Your task to perform on an android device: When is my next appointment? Image 0: 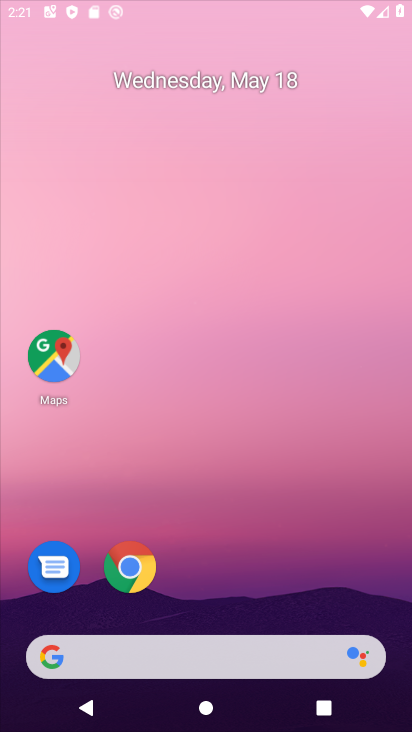
Step 0: drag from (229, 565) to (255, 124)
Your task to perform on an android device: When is my next appointment? Image 1: 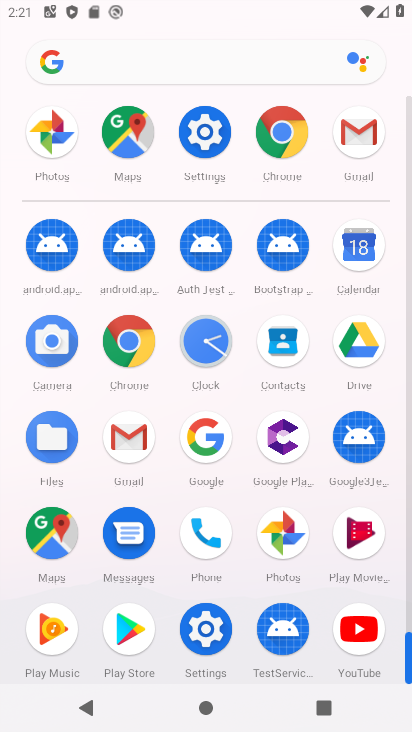
Step 1: drag from (104, 499) to (138, 280)
Your task to perform on an android device: When is my next appointment? Image 2: 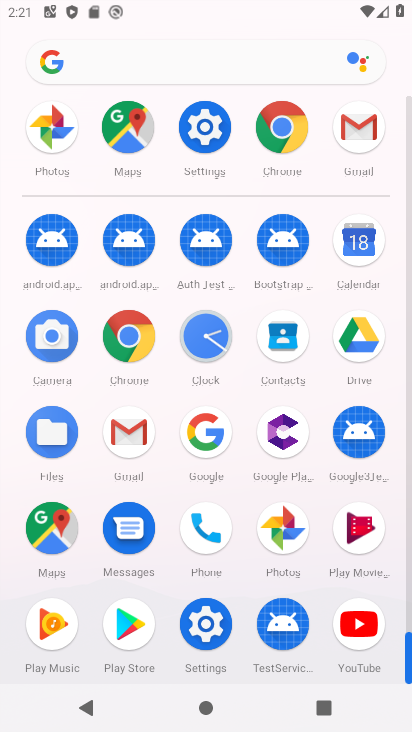
Step 2: drag from (221, 564) to (282, 235)
Your task to perform on an android device: When is my next appointment? Image 3: 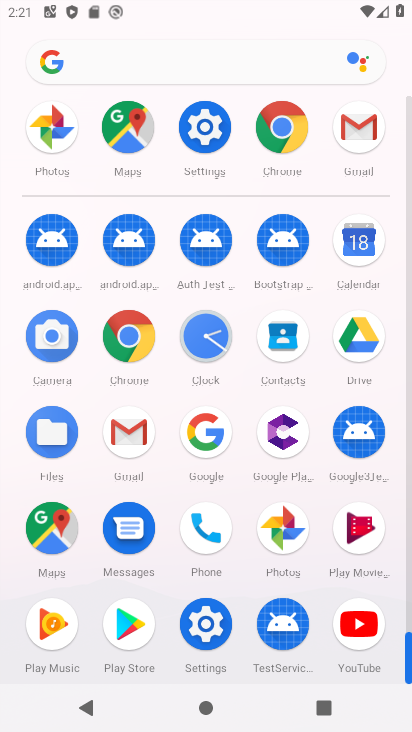
Step 3: click (365, 218)
Your task to perform on an android device: When is my next appointment? Image 4: 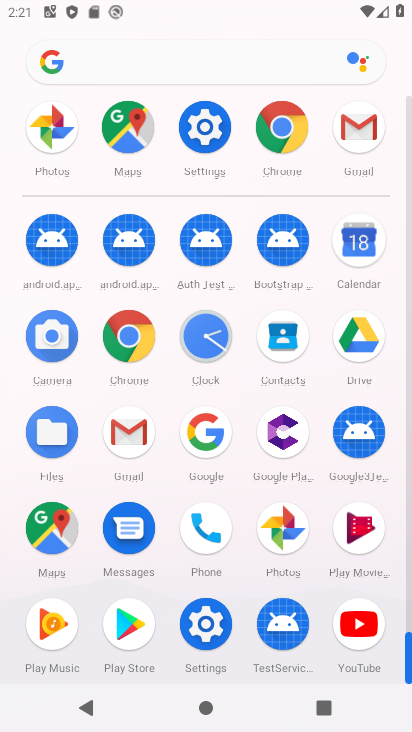
Step 4: click (356, 232)
Your task to perform on an android device: When is my next appointment? Image 5: 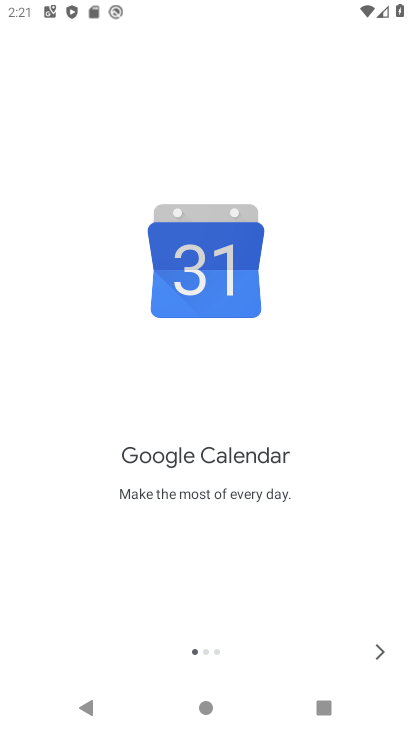
Step 5: click (374, 659)
Your task to perform on an android device: When is my next appointment? Image 6: 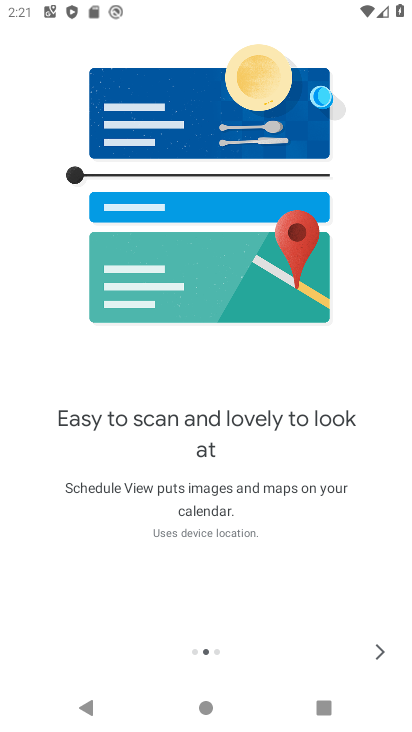
Step 6: click (383, 651)
Your task to perform on an android device: When is my next appointment? Image 7: 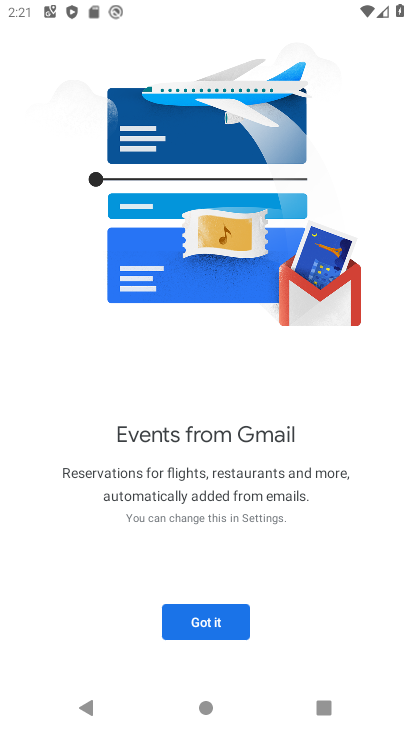
Step 7: click (194, 618)
Your task to perform on an android device: When is my next appointment? Image 8: 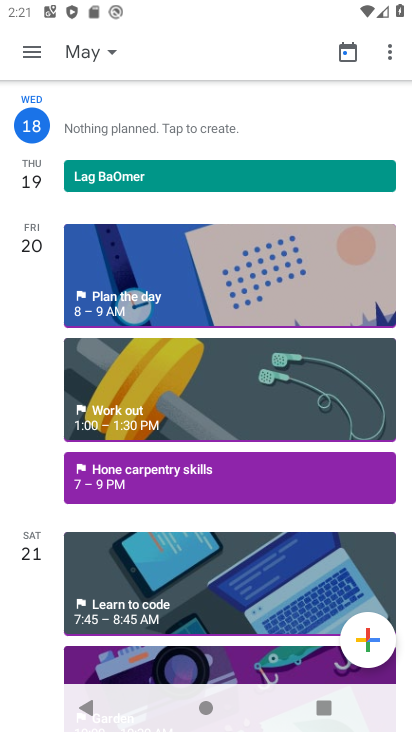
Step 8: click (20, 42)
Your task to perform on an android device: When is my next appointment? Image 9: 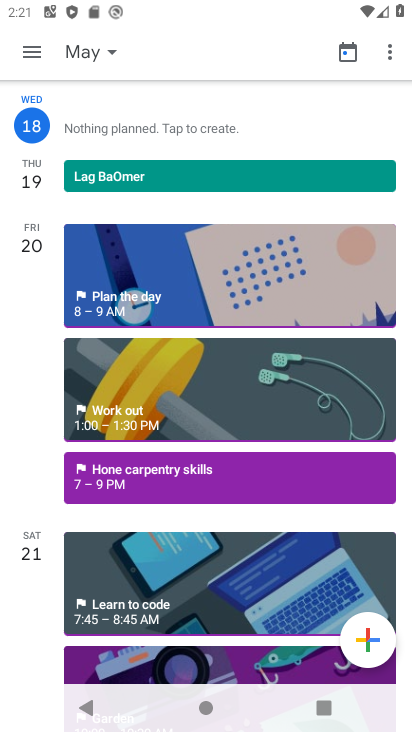
Step 9: task complete